Your task to perform on an android device: open app "ColorNote Notepad Notes" Image 0: 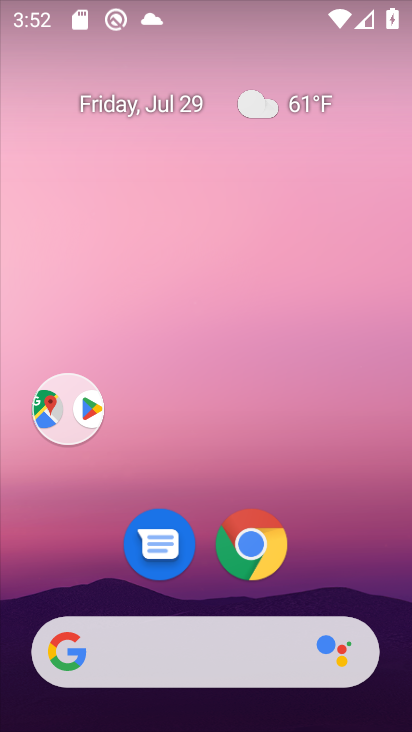
Step 0: click (199, 501)
Your task to perform on an android device: open app "ColorNote Notepad Notes" Image 1: 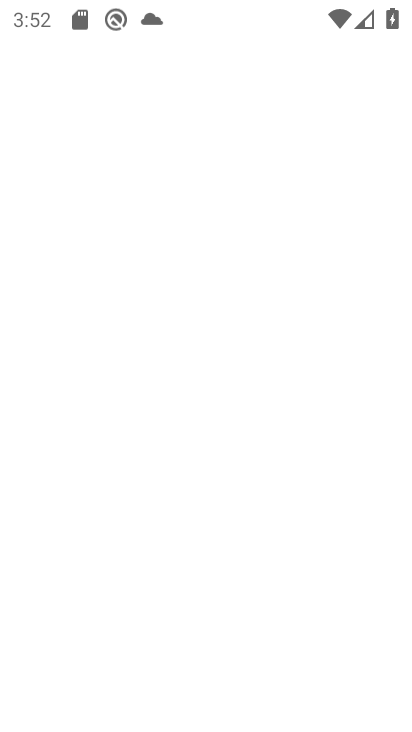
Step 1: task complete